Your task to perform on an android device: Look up the best selling books on Goodreads. Image 0: 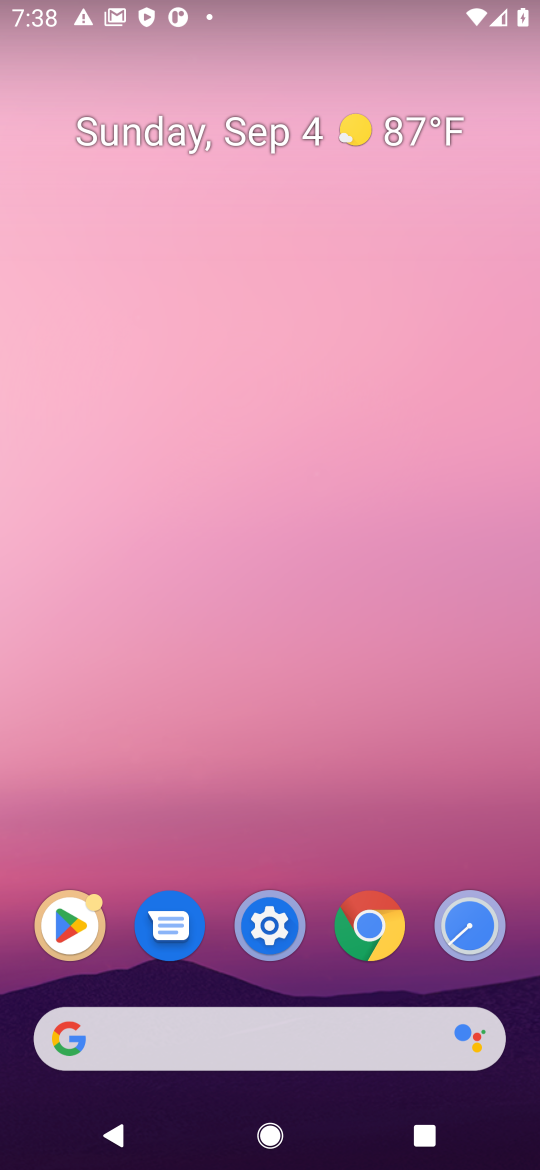
Step 0: press home button
Your task to perform on an android device: Look up the best selling books on Goodreads. Image 1: 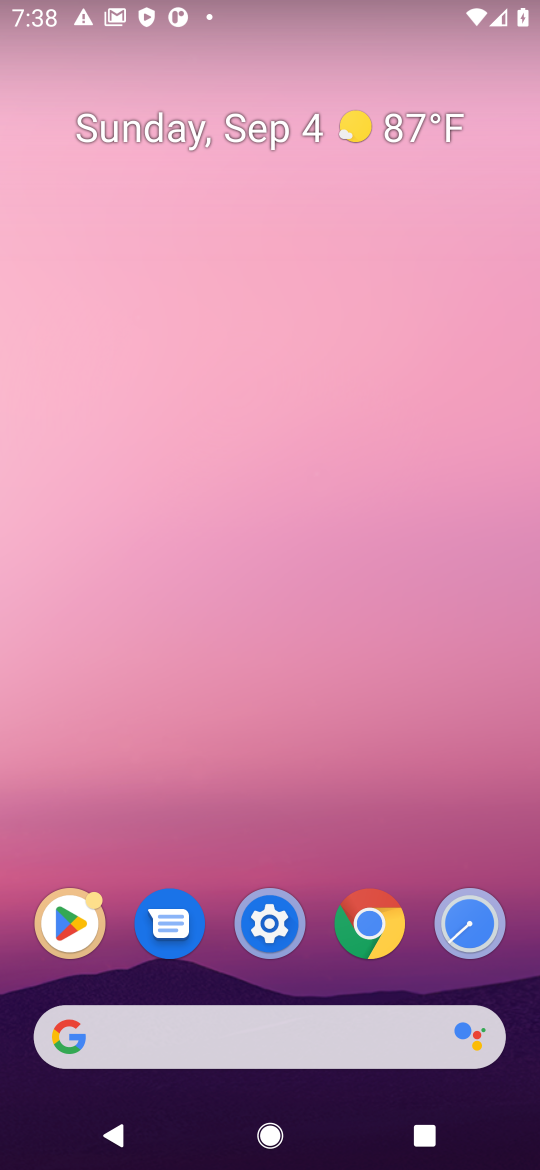
Step 1: click (393, 1035)
Your task to perform on an android device: Look up the best selling books on Goodreads. Image 2: 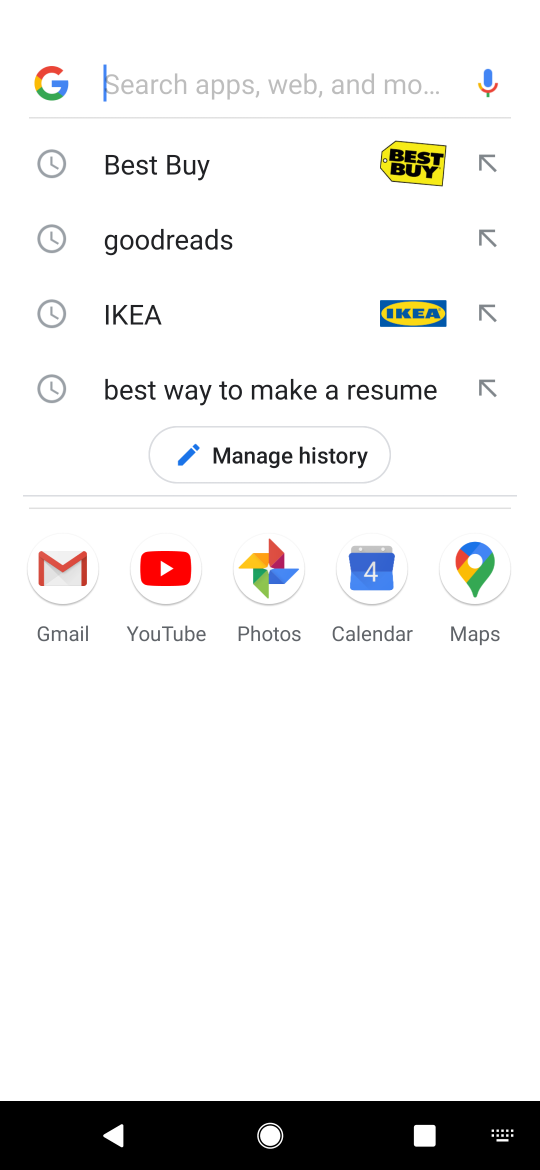
Step 2: press enter
Your task to perform on an android device: Look up the best selling books on Goodreads. Image 3: 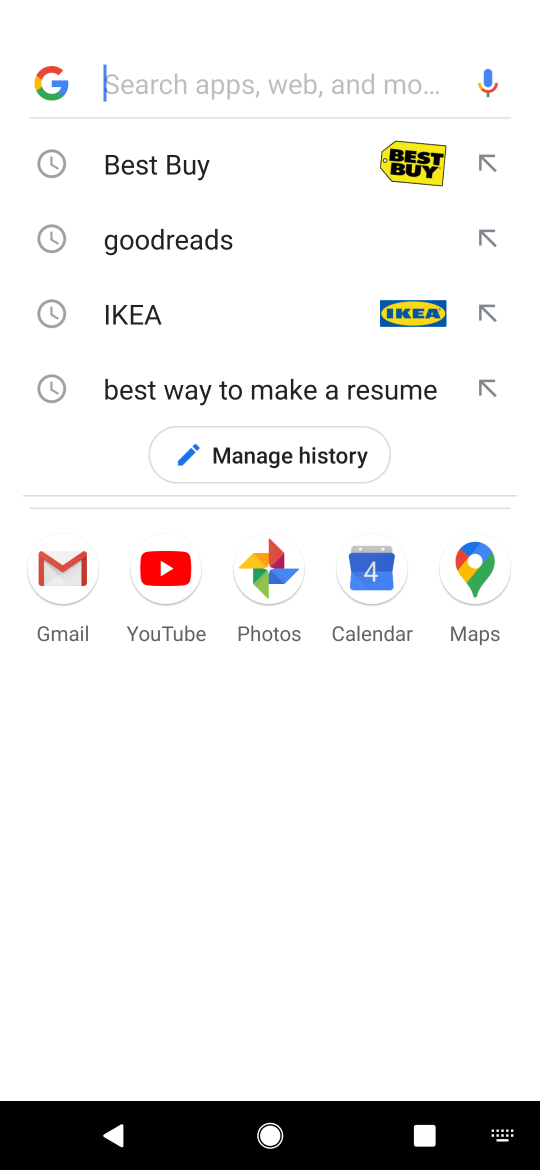
Step 3: type "goodreads"
Your task to perform on an android device: Look up the best selling books on Goodreads. Image 4: 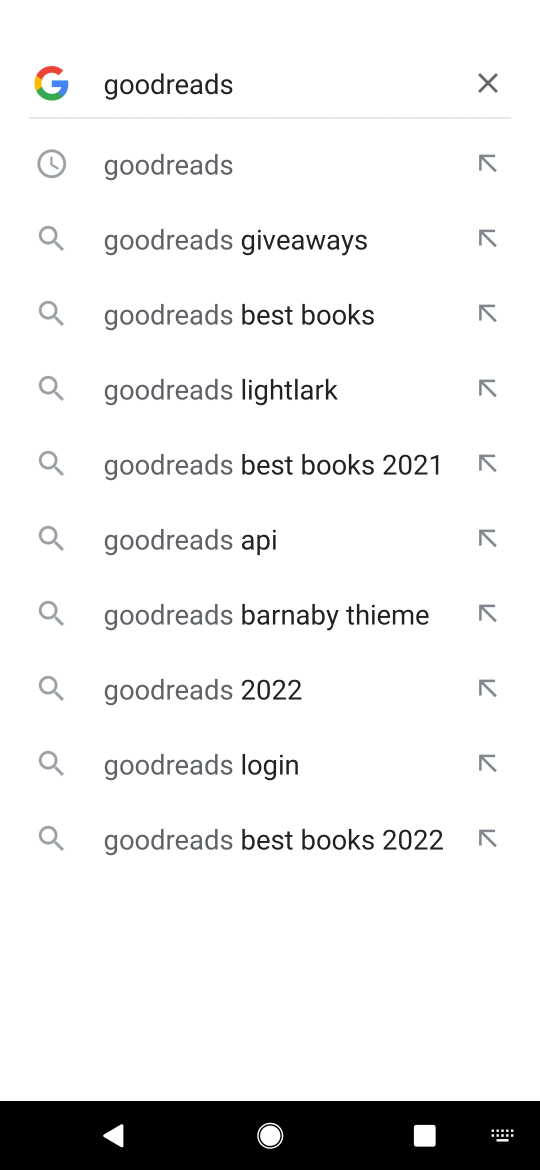
Step 4: click (236, 148)
Your task to perform on an android device: Look up the best selling books on Goodreads. Image 5: 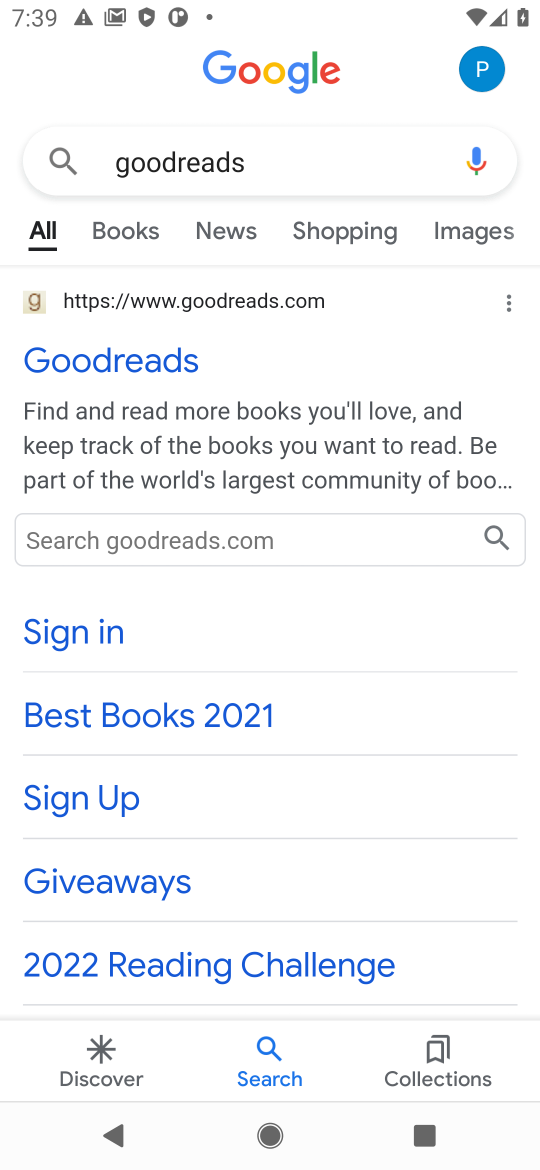
Step 5: click (136, 351)
Your task to perform on an android device: Look up the best selling books on Goodreads. Image 6: 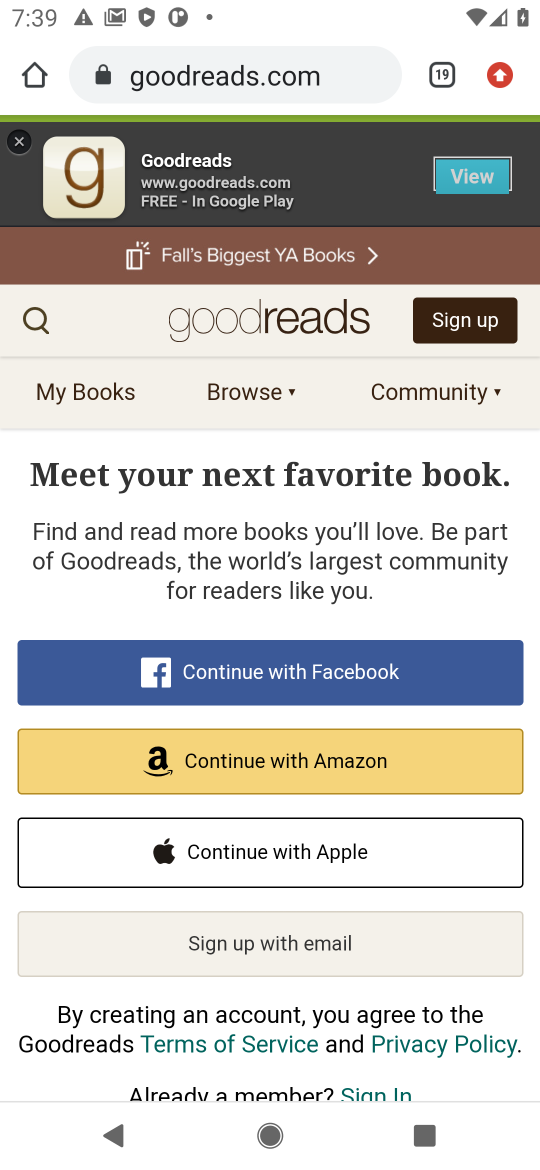
Step 6: click (86, 314)
Your task to perform on an android device: Look up the best selling books on Goodreads. Image 7: 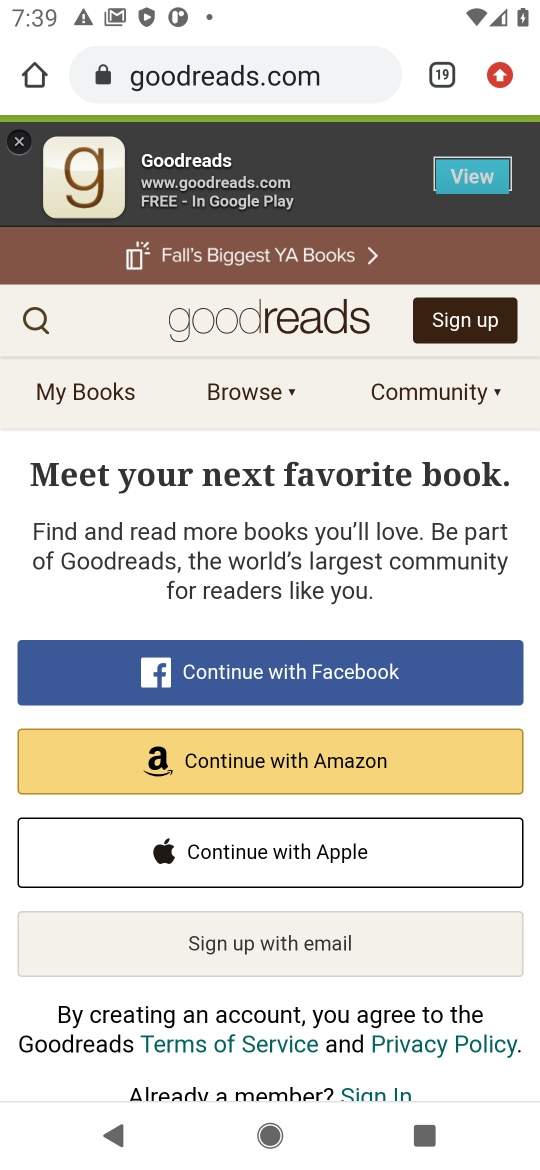
Step 7: click (43, 327)
Your task to perform on an android device: Look up the best selling books on Goodreads. Image 8: 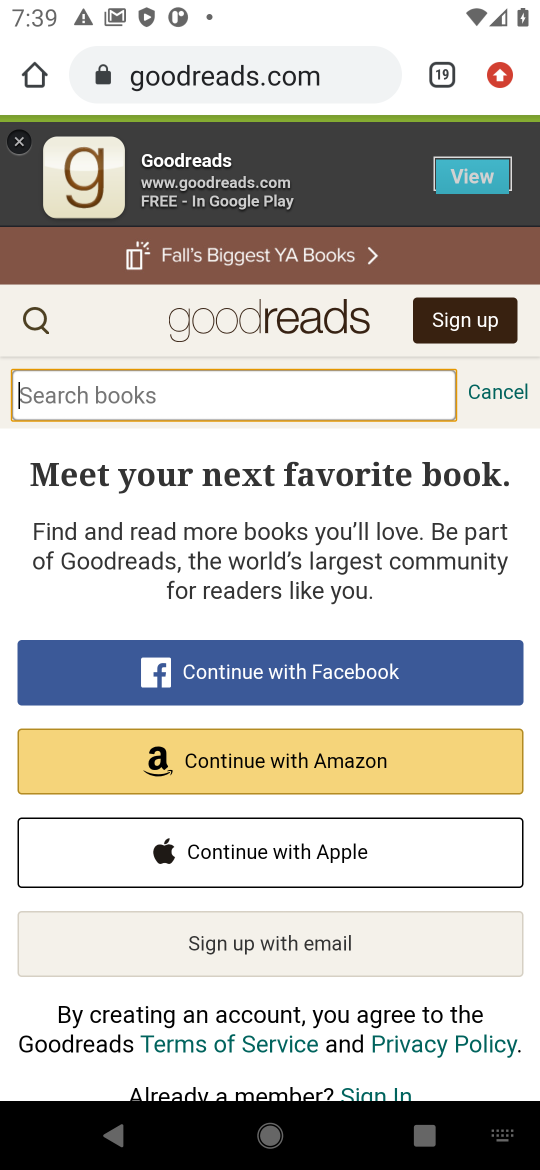
Step 8: press enter
Your task to perform on an android device: Look up the best selling books on Goodreads. Image 9: 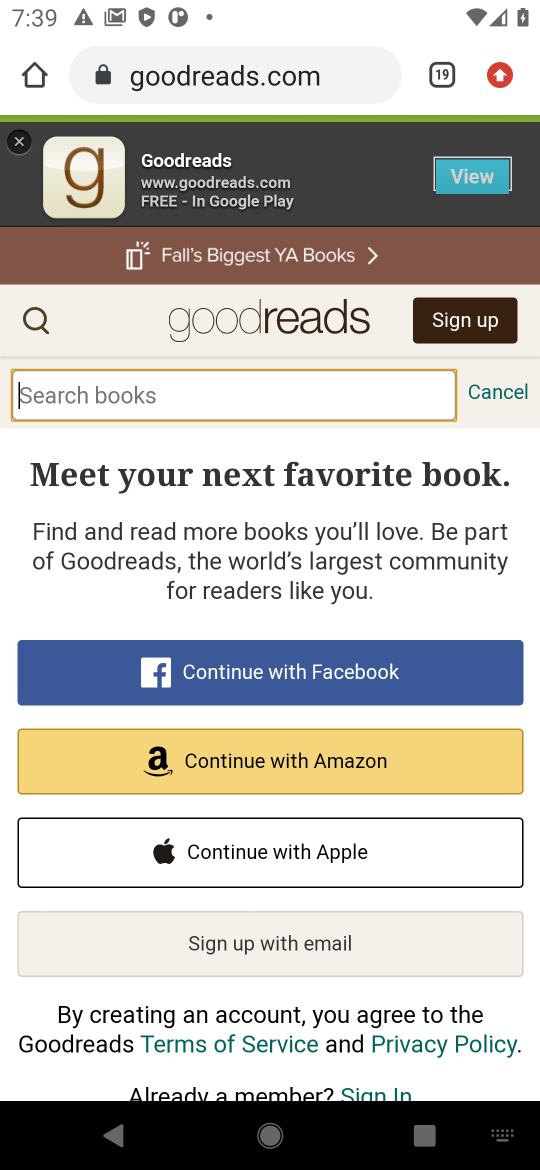
Step 9: type " best selling books"
Your task to perform on an android device: Look up the best selling books on Goodreads. Image 10: 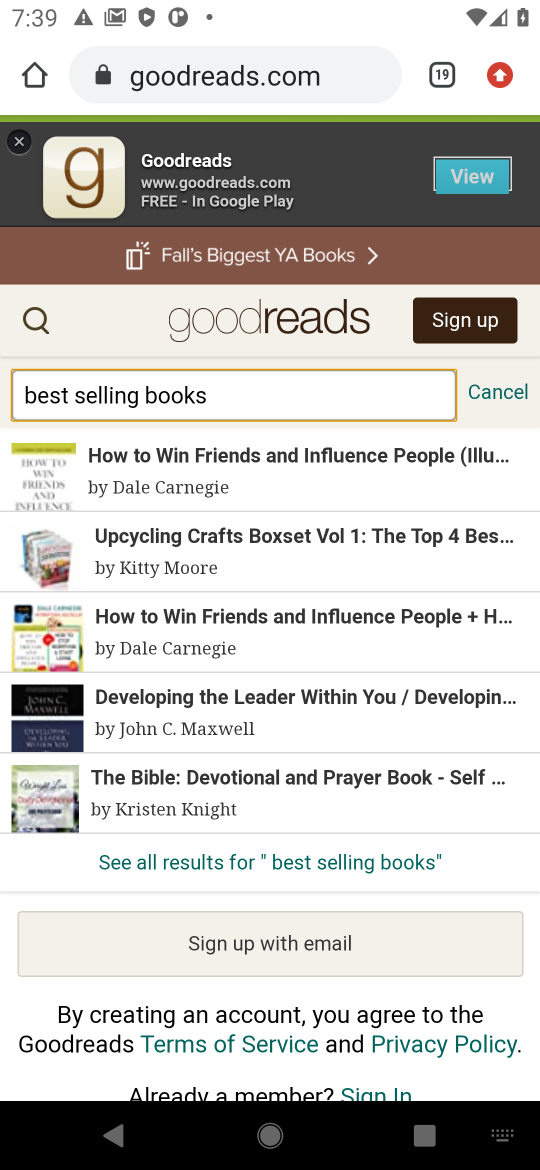
Step 10: task complete